Your task to perform on an android device: turn on priority inbox in the gmail app Image 0: 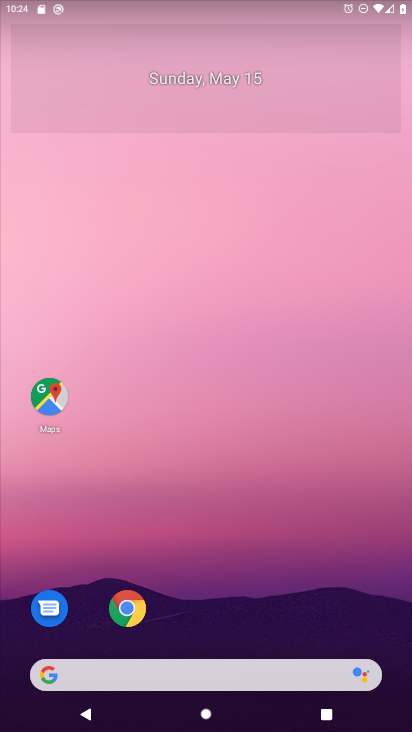
Step 0: drag from (310, 586) to (339, 149)
Your task to perform on an android device: turn on priority inbox in the gmail app Image 1: 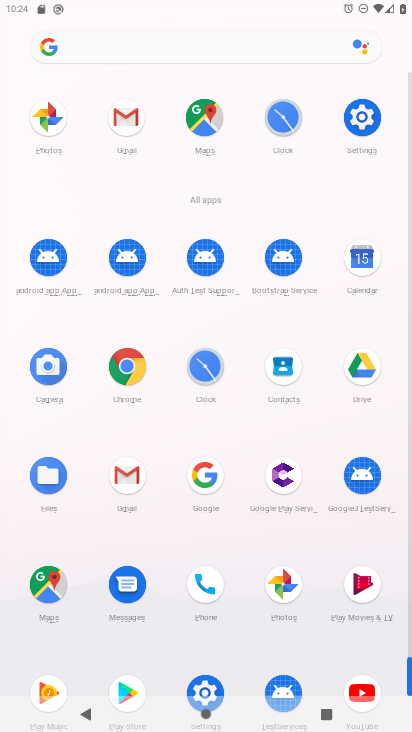
Step 1: click (138, 477)
Your task to perform on an android device: turn on priority inbox in the gmail app Image 2: 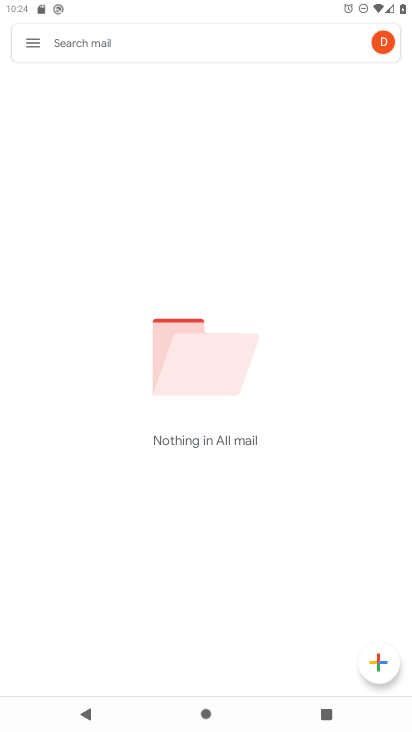
Step 2: click (30, 46)
Your task to perform on an android device: turn on priority inbox in the gmail app Image 3: 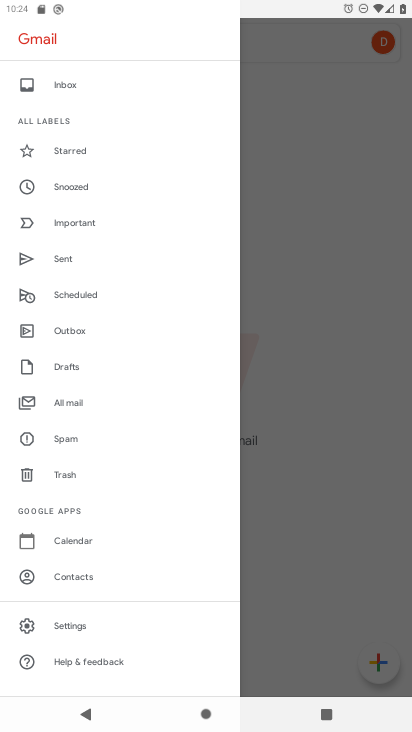
Step 3: click (103, 627)
Your task to perform on an android device: turn on priority inbox in the gmail app Image 4: 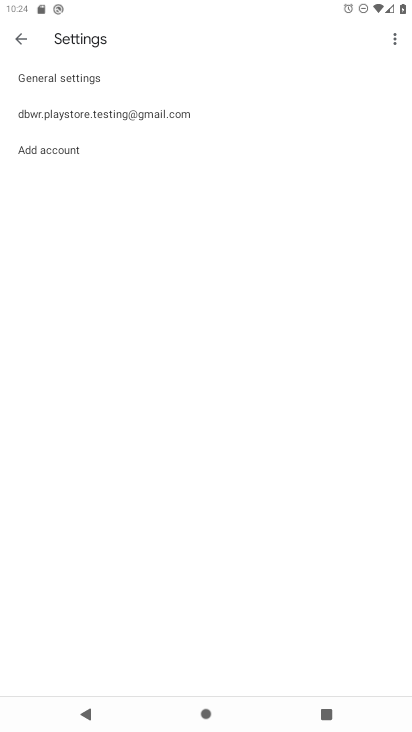
Step 4: click (185, 111)
Your task to perform on an android device: turn on priority inbox in the gmail app Image 5: 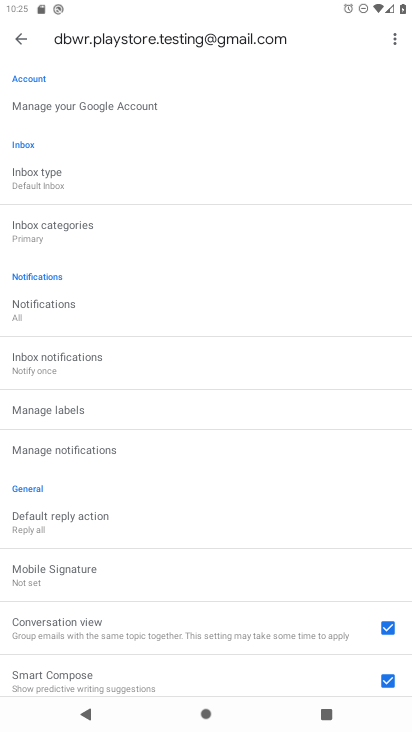
Step 5: click (64, 167)
Your task to perform on an android device: turn on priority inbox in the gmail app Image 6: 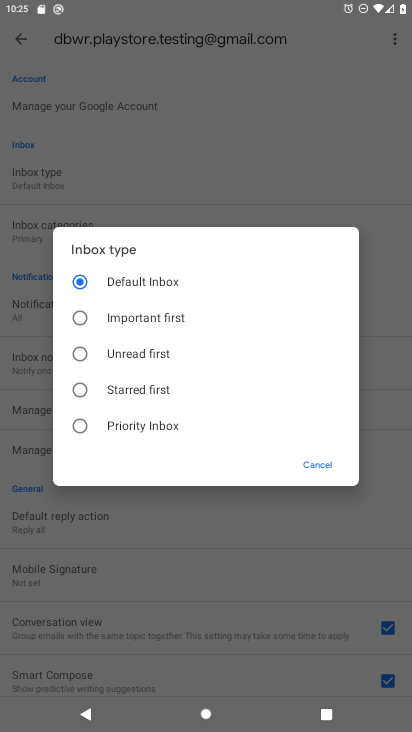
Step 6: click (82, 427)
Your task to perform on an android device: turn on priority inbox in the gmail app Image 7: 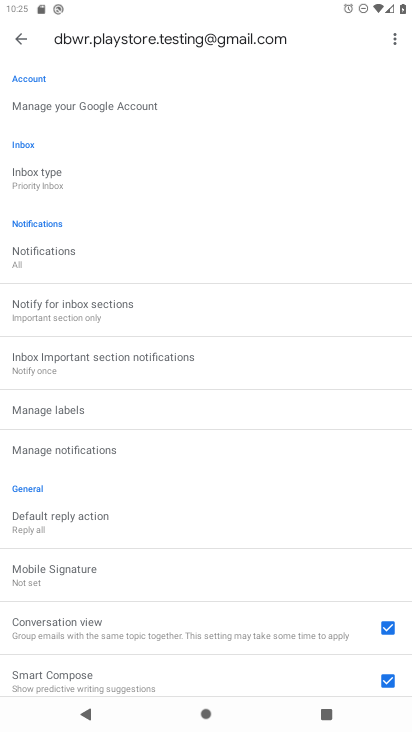
Step 7: task complete